Your task to perform on an android device: Open battery settings Image 0: 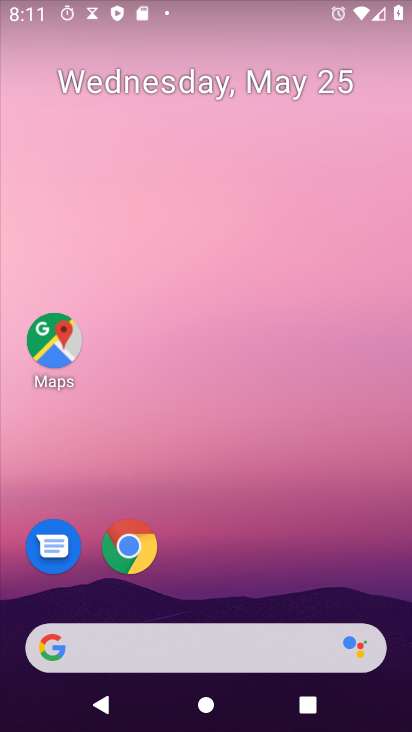
Step 0: drag from (204, 592) to (209, 74)
Your task to perform on an android device: Open battery settings Image 1: 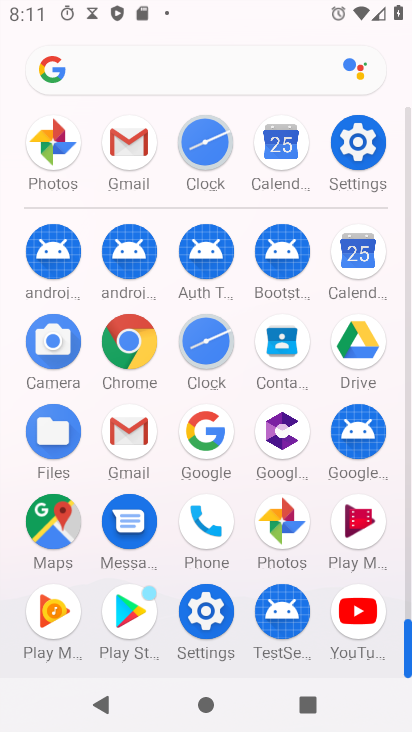
Step 1: click (346, 180)
Your task to perform on an android device: Open battery settings Image 2: 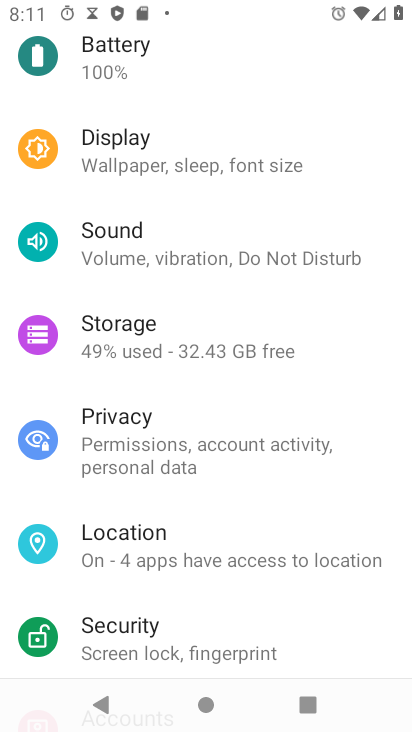
Step 2: click (125, 65)
Your task to perform on an android device: Open battery settings Image 3: 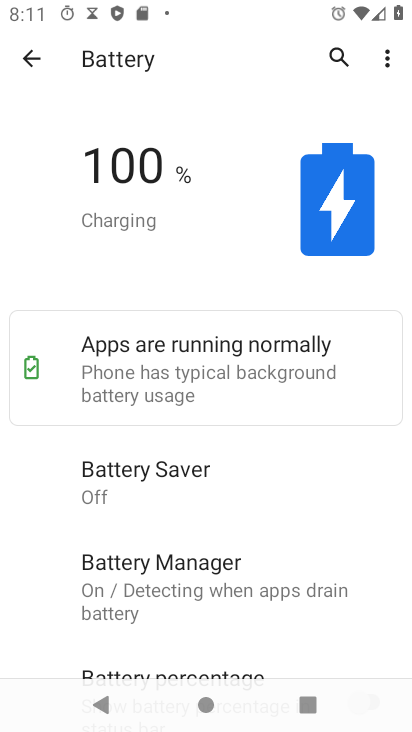
Step 3: task complete